Your task to perform on an android device: Open Google Image 0: 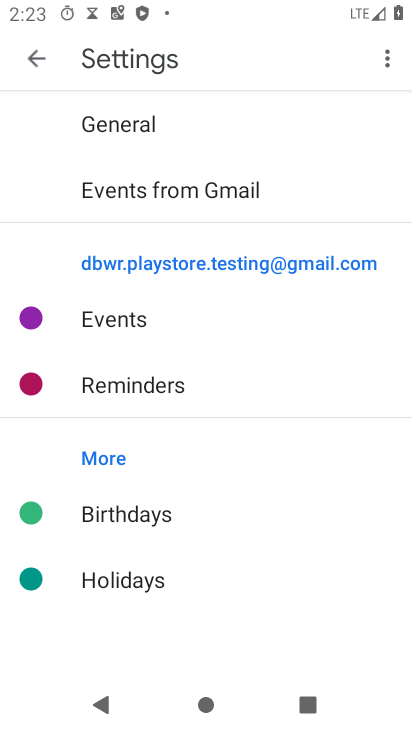
Step 0: press home button
Your task to perform on an android device: Open Google Image 1: 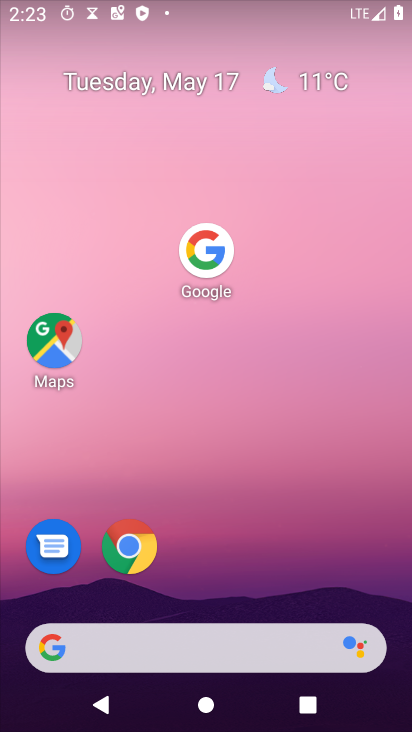
Step 1: click (211, 243)
Your task to perform on an android device: Open Google Image 2: 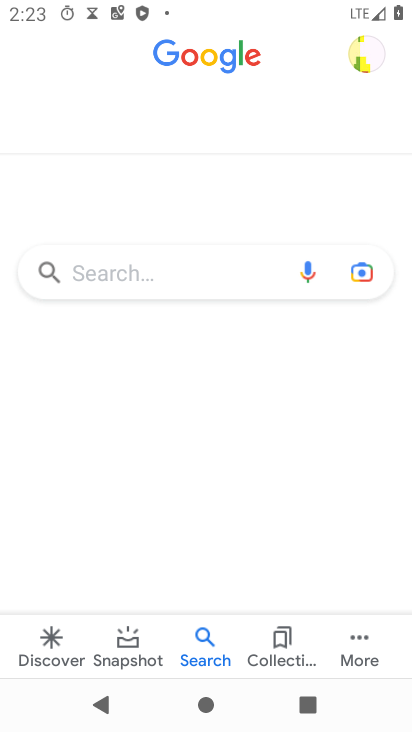
Step 2: click (34, 650)
Your task to perform on an android device: Open Google Image 3: 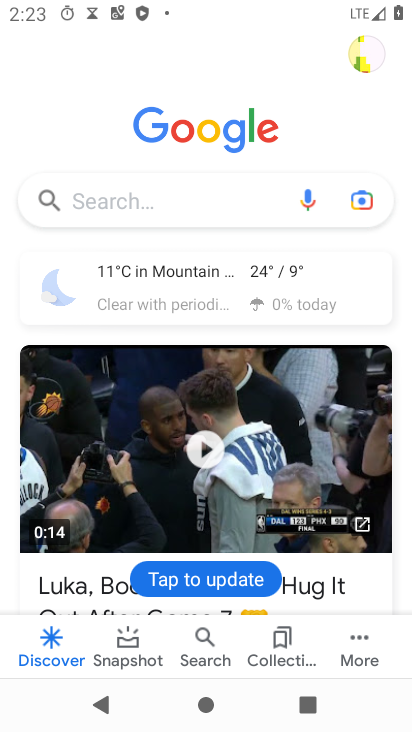
Step 3: task complete